Your task to perform on an android device: Open settings on Google Maps Image 0: 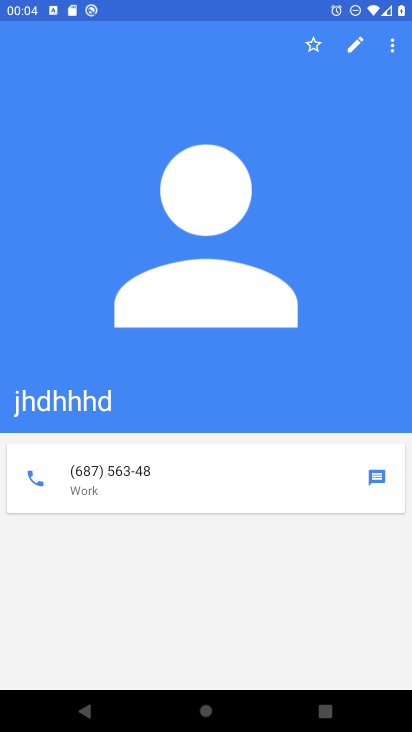
Step 0: press home button
Your task to perform on an android device: Open settings on Google Maps Image 1: 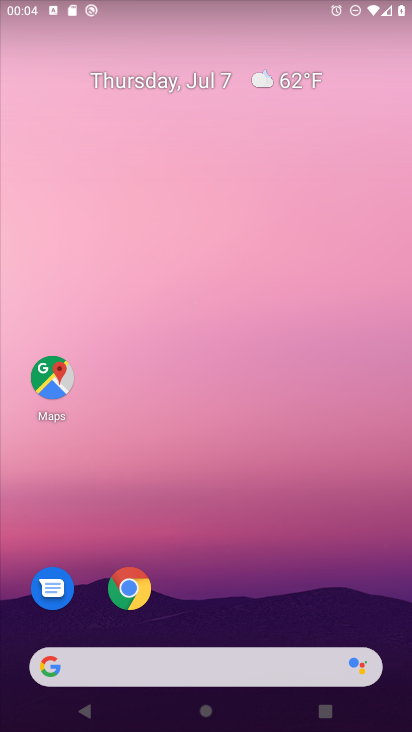
Step 1: click (50, 380)
Your task to perform on an android device: Open settings on Google Maps Image 2: 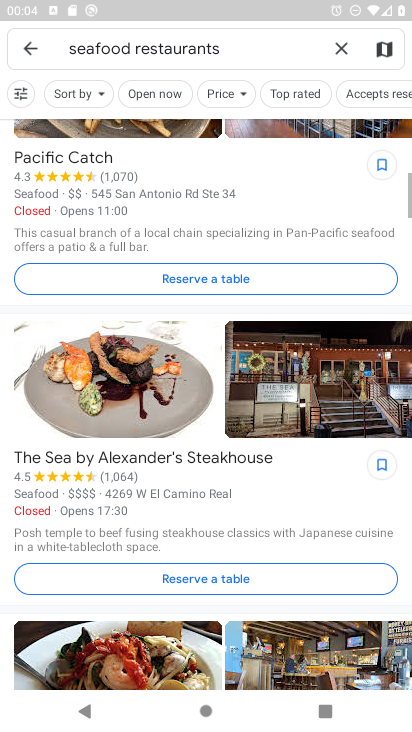
Step 2: click (339, 46)
Your task to perform on an android device: Open settings on Google Maps Image 3: 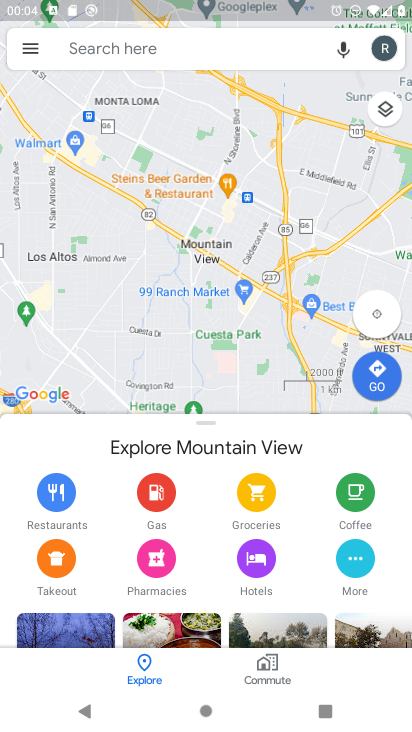
Step 3: click (25, 51)
Your task to perform on an android device: Open settings on Google Maps Image 4: 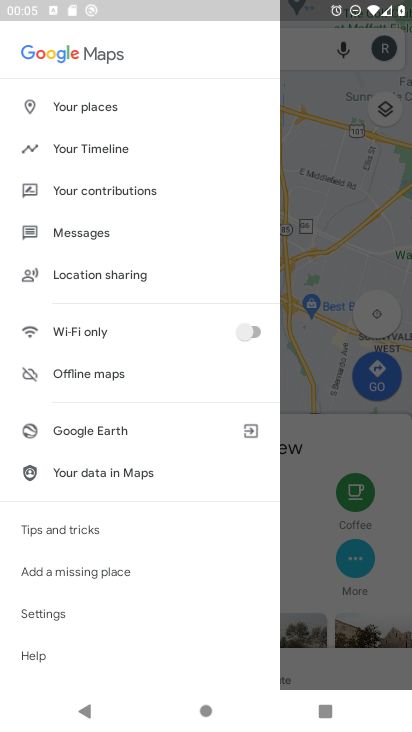
Step 4: click (45, 614)
Your task to perform on an android device: Open settings on Google Maps Image 5: 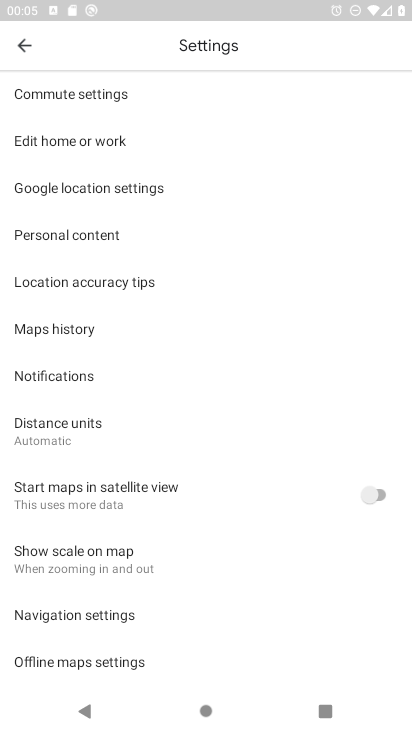
Step 5: task complete